Your task to perform on an android device: read, delete, or share a saved page in the chrome app Image 0: 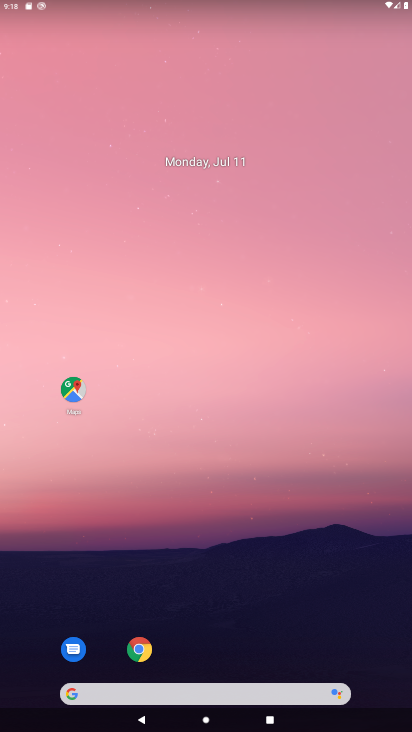
Step 0: click (144, 650)
Your task to perform on an android device: read, delete, or share a saved page in the chrome app Image 1: 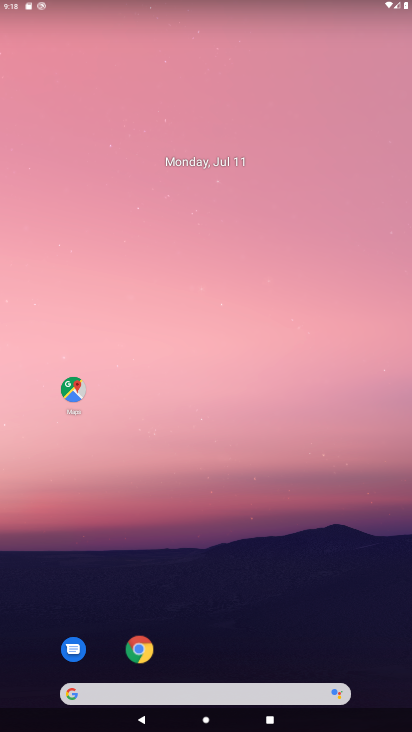
Step 1: click (146, 649)
Your task to perform on an android device: read, delete, or share a saved page in the chrome app Image 2: 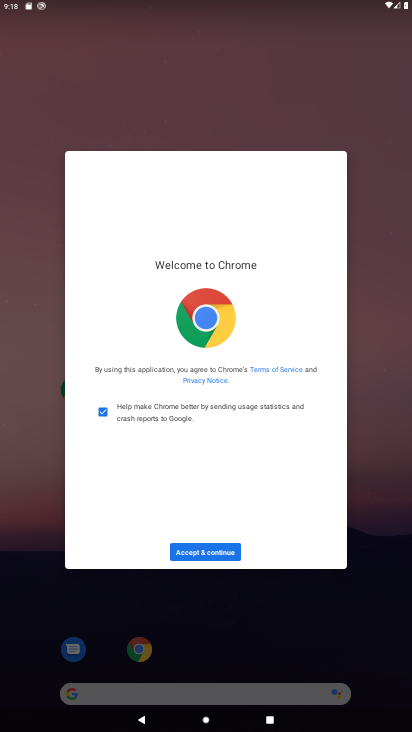
Step 2: click (190, 558)
Your task to perform on an android device: read, delete, or share a saved page in the chrome app Image 3: 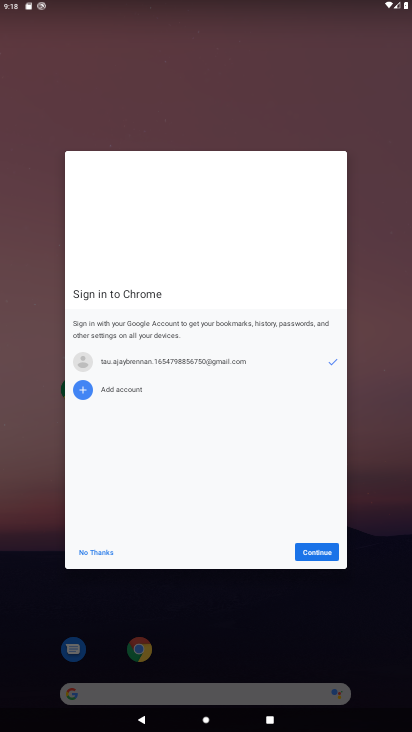
Step 3: click (310, 553)
Your task to perform on an android device: read, delete, or share a saved page in the chrome app Image 4: 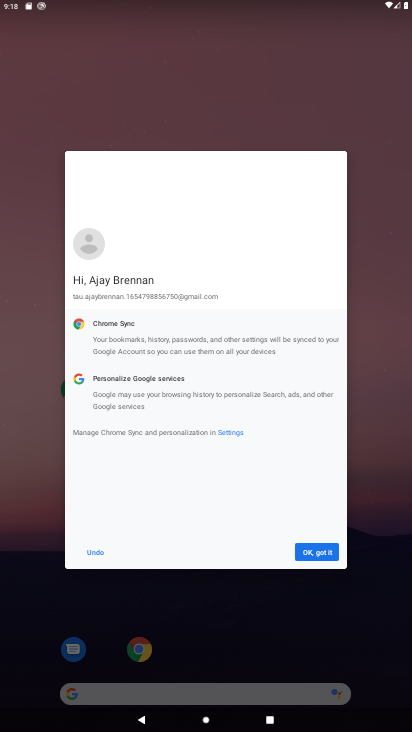
Step 4: click (322, 554)
Your task to perform on an android device: read, delete, or share a saved page in the chrome app Image 5: 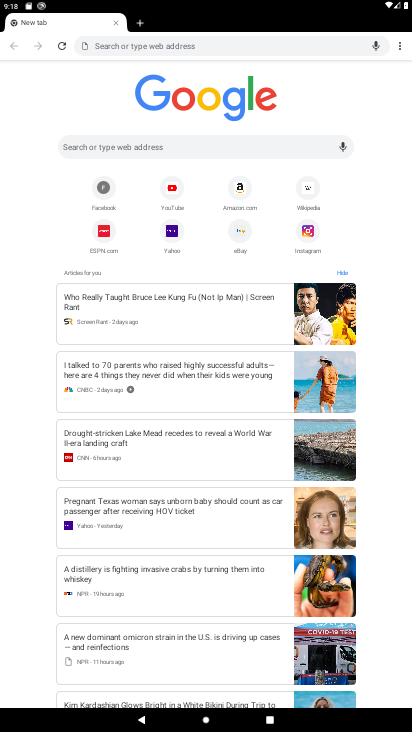
Step 5: click (399, 44)
Your task to perform on an android device: read, delete, or share a saved page in the chrome app Image 6: 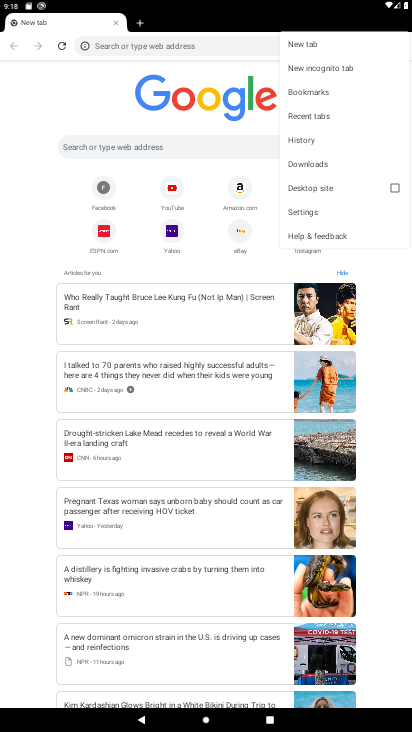
Step 6: click (323, 161)
Your task to perform on an android device: read, delete, or share a saved page in the chrome app Image 7: 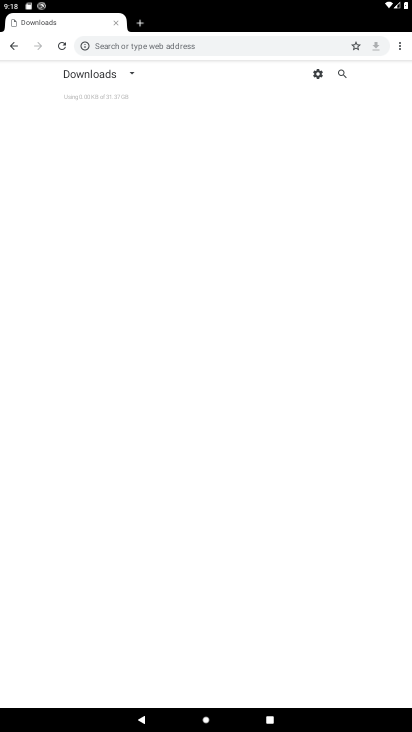
Step 7: click (124, 77)
Your task to perform on an android device: read, delete, or share a saved page in the chrome app Image 8: 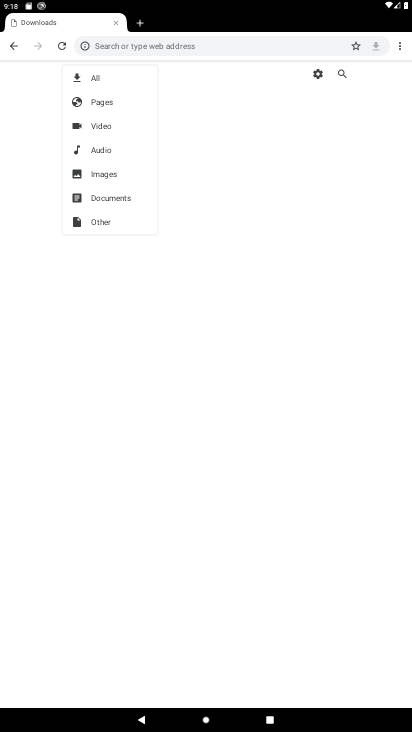
Step 8: click (135, 76)
Your task to perform on an android device: read, delete, or share a saved page in the chrome app Image 9: 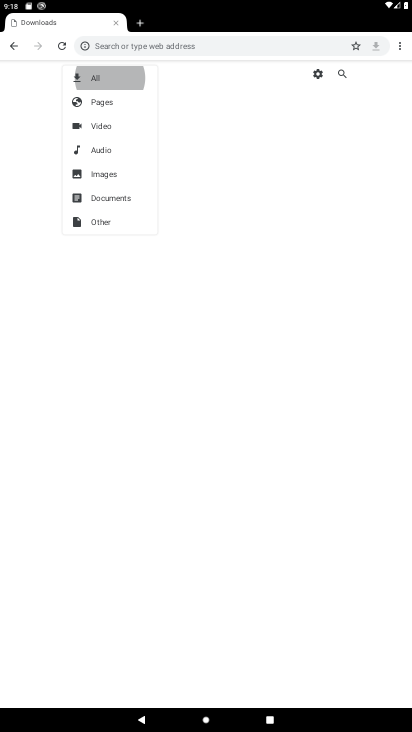
Step 9: click (140, 102)
Your task to perform on an android device: read, delete, or share a saved page in the chrome app Image 10: 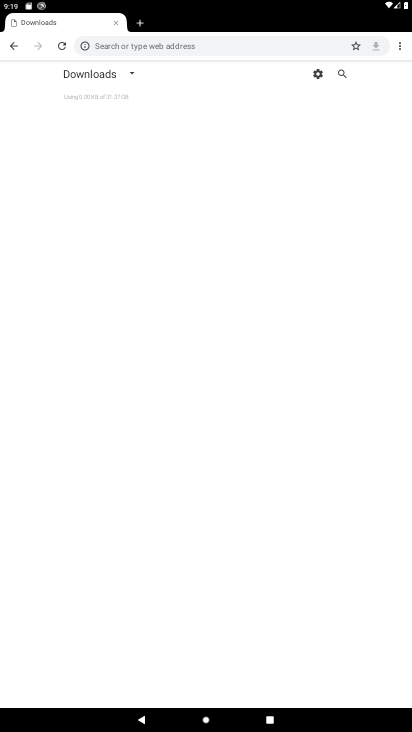
Step 10: click (126, 78)
Your task to perform on an android device: read, delete, or share a saved page in the chrome app Image 11: 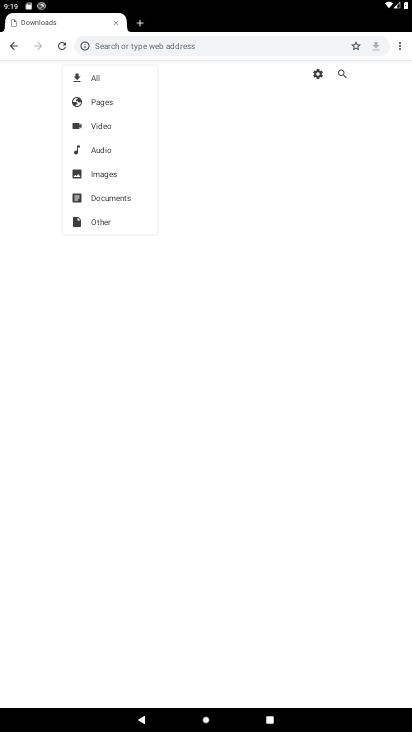
Step 11: click (105, 106)
Your task to perform on an android device: read, delete, or share a saved page in the chrome app Image 12: 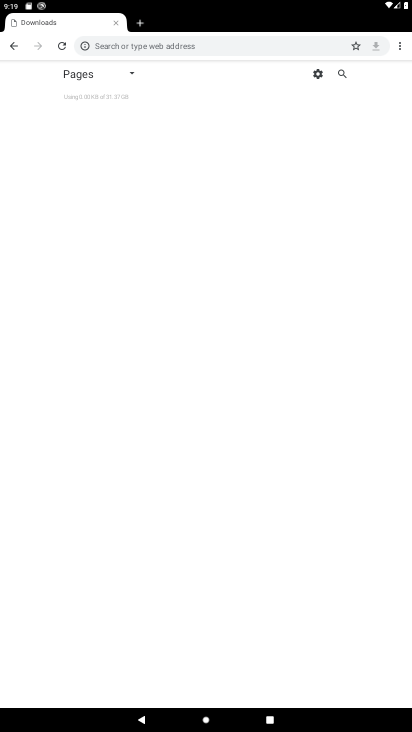
Step 12: task complete